Your task to perform on an android device: change the clock display to analog Image 0: 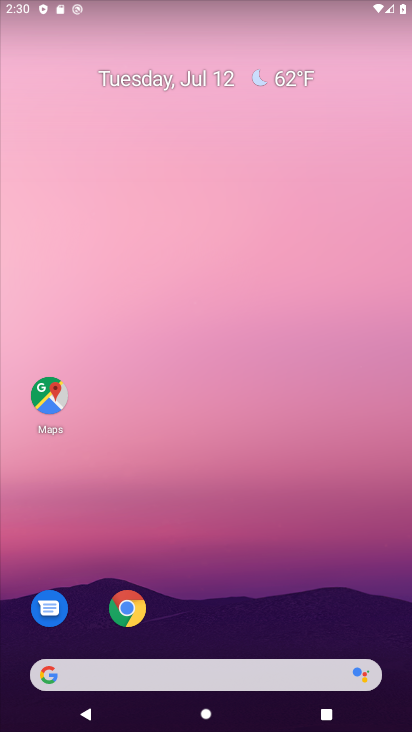
Step 0: drag from (169, 666) to (282, 191)
Your task to perform on an android device: change the clock display to analog Image 1: 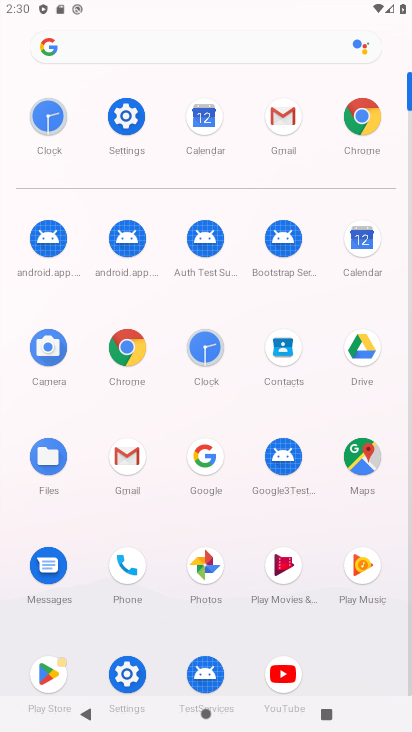
Step 1: click (200, 357)
Your task to perform on an android device: change the clock display to analog Image 2: 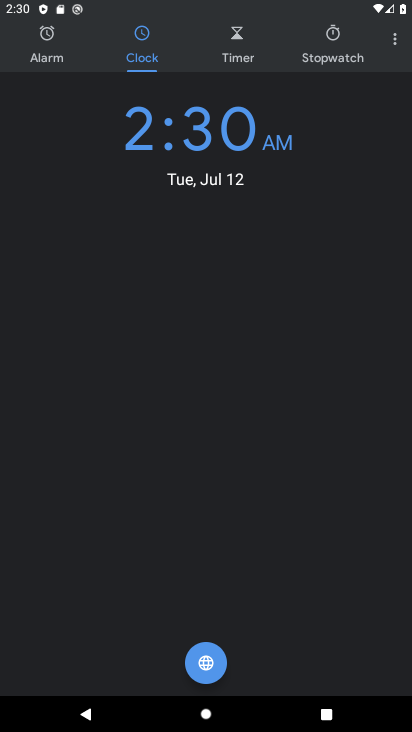
Step 2: click (395, 41)
Your task to perform on an android device: change the clock display to analog Image 3: 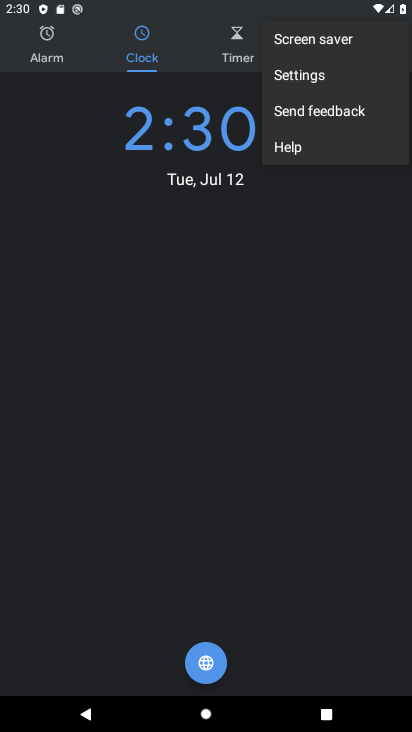
Step 3: click (304, 77)
Your task to perform on an android device: change the clock display to analog Image 4: 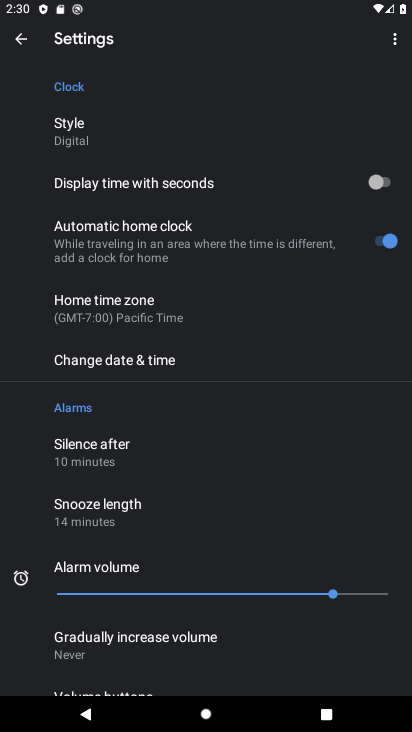
Step 4: click (90, 138)
Your task to perform on an android device: change the clock display to analog Image 5: 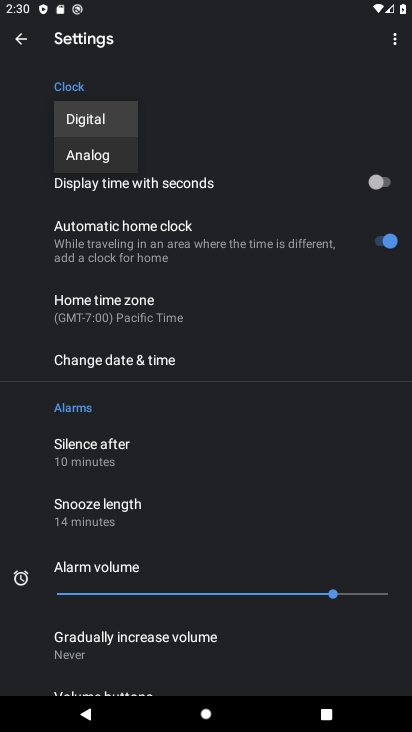
Step 5: click (111, 152)
Your task to perform on an android device: change the clock display to analog Image 6: 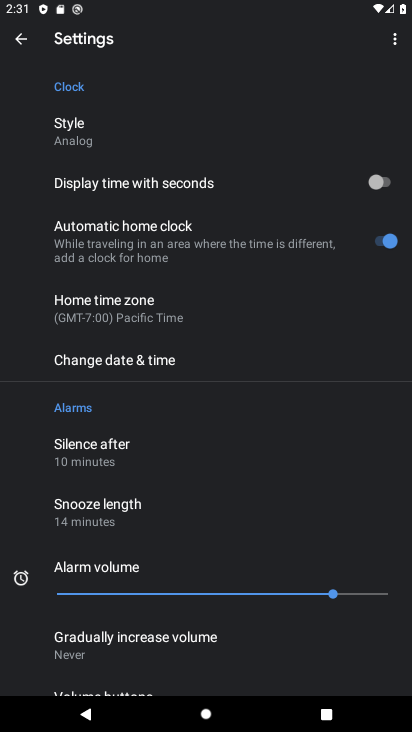
Step 6: task complete